Your task to perform on an android device: turn on the 12-hour format for clock Image 0: 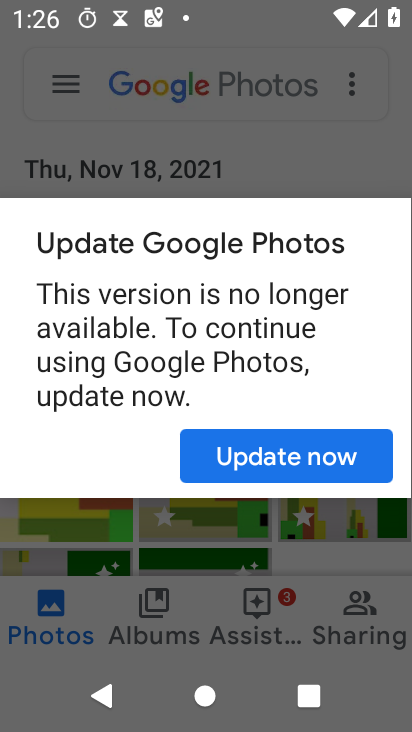
Step 0: press home button
Your task to perform on an android device: turn on the 12-hour format for clock Image 1: 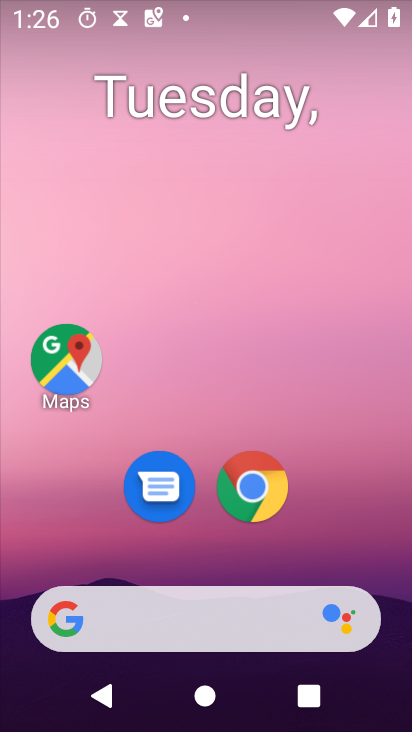
Step 1: drag from (379, 574) to (296, 118)
Your task to perform on an android device: turn on the 12-hour format for clock Image 2: 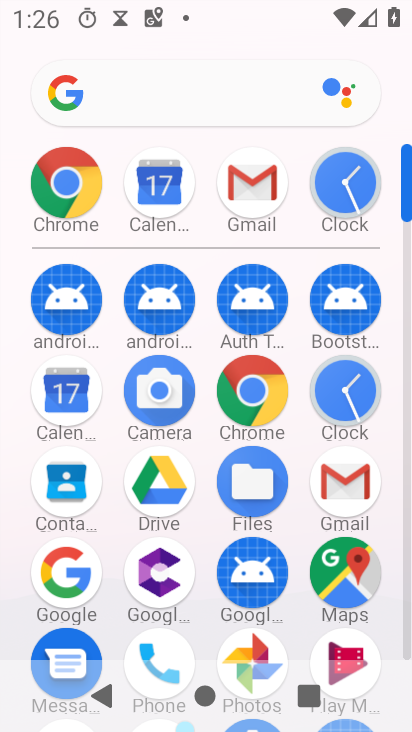
Step 2: click (332, 172)
Your task to perform on an android device: turn on the 12-hour format for clock Image 3: 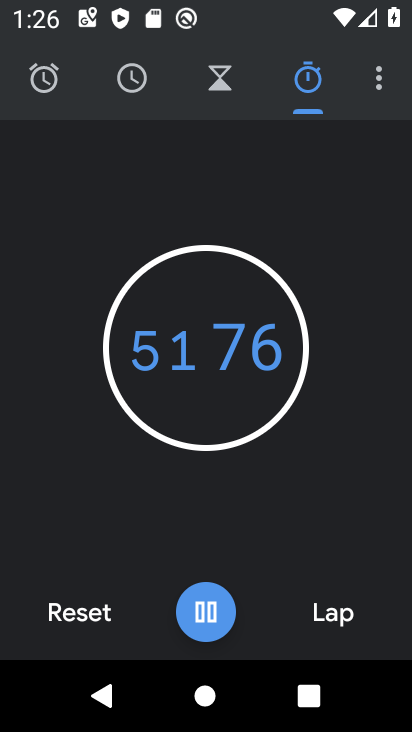
Step 3: click (382, 86)
Your task to perform on an android device: turn on the 12-hour format for clock Image 4: 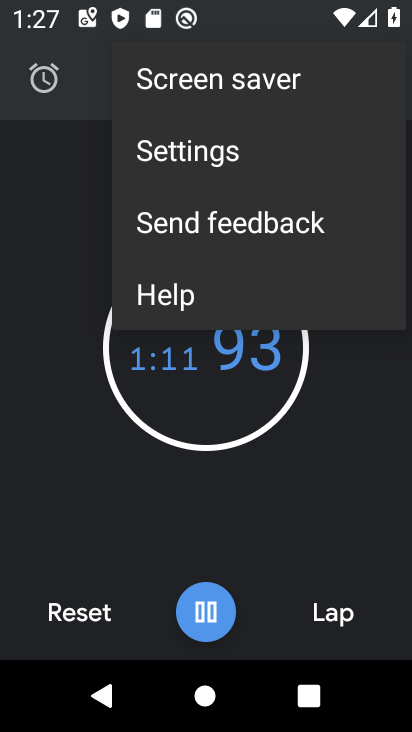
Step 4: click (308, 154)
Your task to perform on an android device: turn on the 12-hour format for clock Image 5: 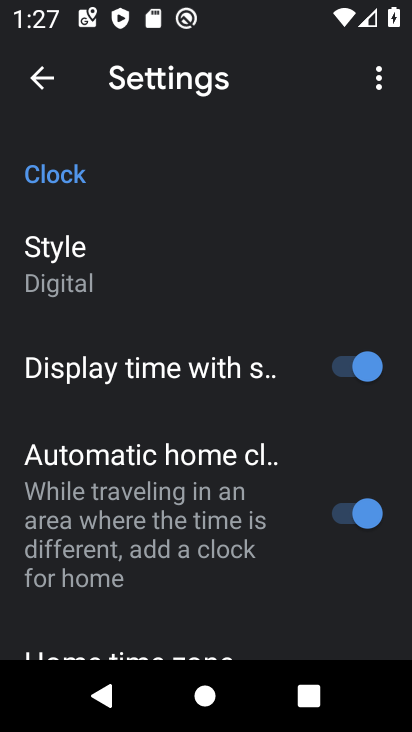
Step 5: drag from (282, 564) to (242, 190)
Your task to perform on an android device: turn on the 12-hour format for clock Image 6: 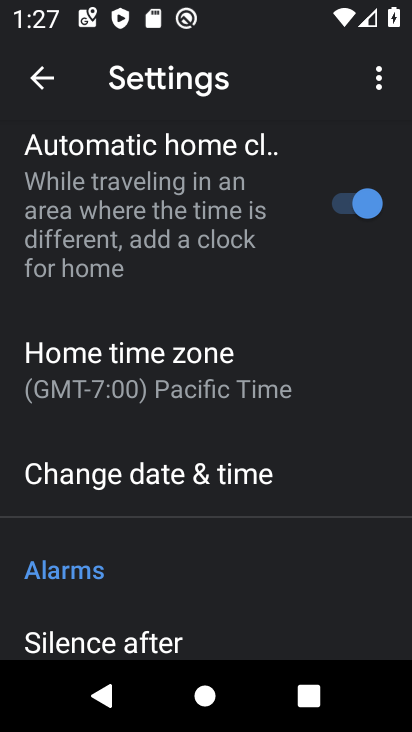
Step 6: click (258, 479)
Your task to perform on an android device: turn on the 12-hour format for clock Image 7: 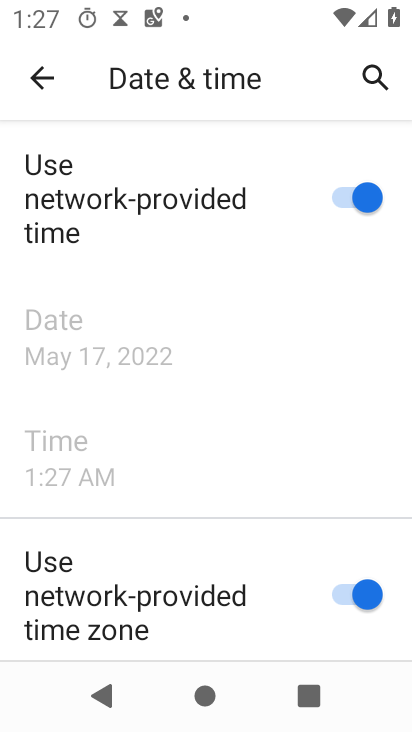
Step 7: task complete